Your task to perform on an android device: turn on airplane mode Image 0: 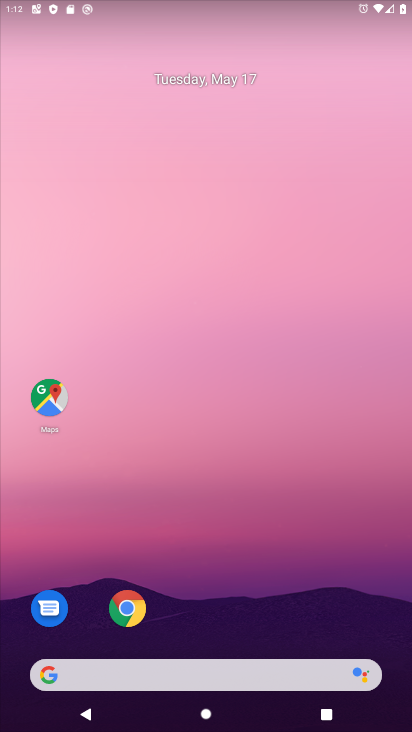
Step 0: drag from (200, 19) to (209, 583)
Your task to perform on an android device: turn on airplane mode Image 1: 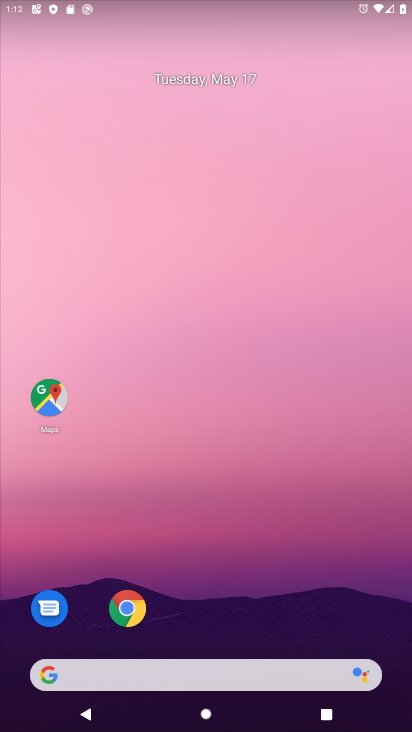
Step 1: drag from (276, 16) to (313, 565)
Your task to perform on an android device: turn on airplane mode Image 2: 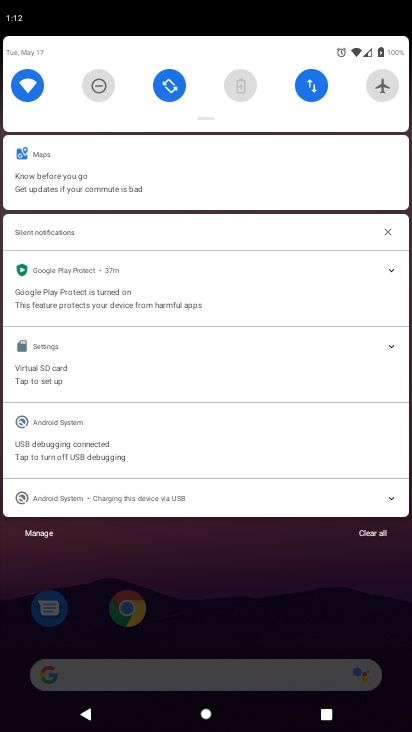
Step 2: click (395, 84)
Your task to perform on an android device: turn on airplane mode Image 3: 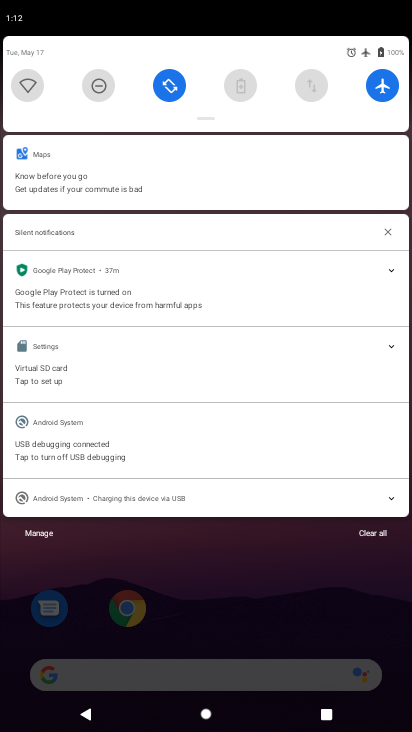
Step 3: task complete